Your task to perform on an android device: toggle show notifications on the lock screen Image 0: 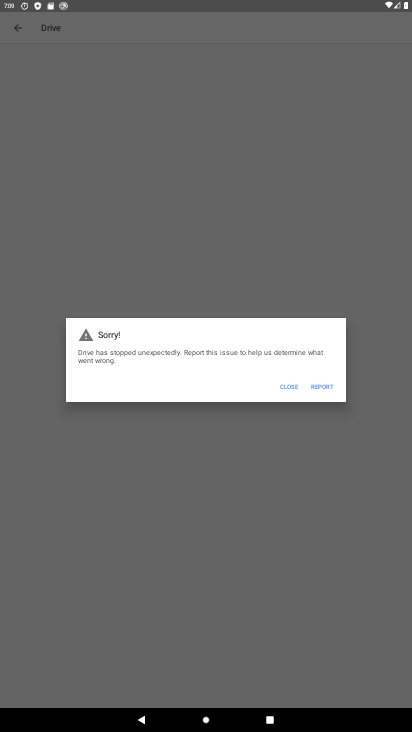
Step 0: press home button
Your task to perform on an android device: toggle show notifications on the lock screen Image 1: 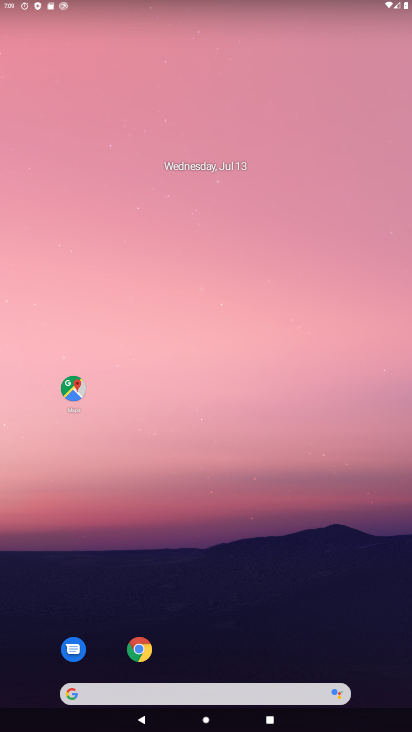
Step 1: drag from (205, 690) to (248, 141)
Your task to perform on an android device: toggle show notifications on the lock screen Image 2: 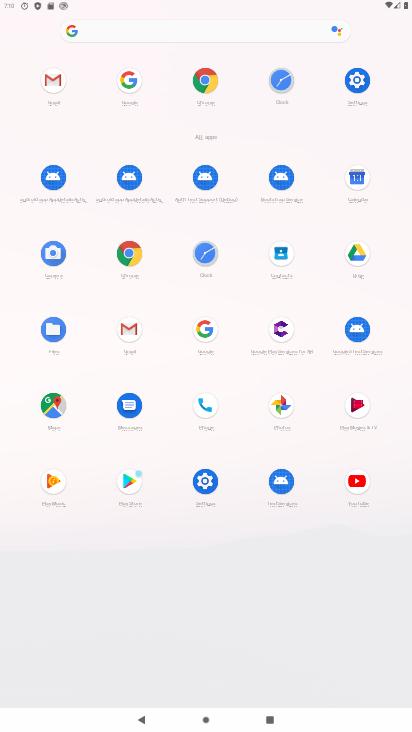
Step 2: click (357, 81)
Your task to perform on an android device: toggle show notifications on the lock screen Image 3: 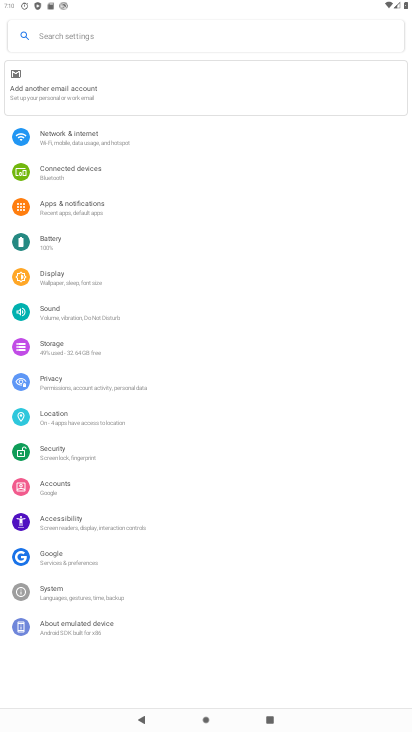
Step 3: click (70, 203)
Your task to perform on an android device: toggle show notifications on the lock screen Image 4: 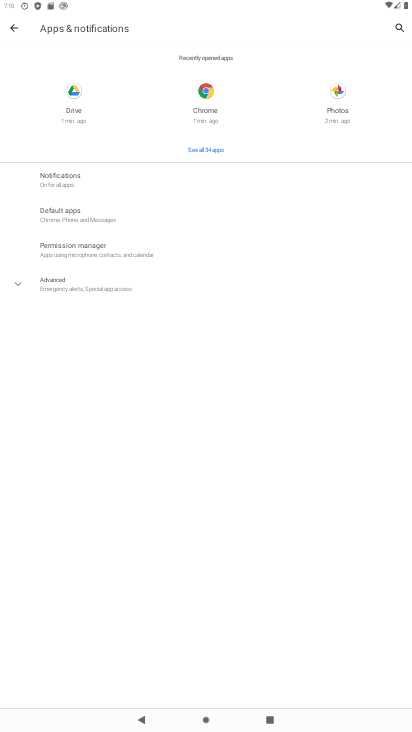
Step 4: click (68, 184)
Your task to perform on an android device: toggle show notifications on the lock screen Image 5: 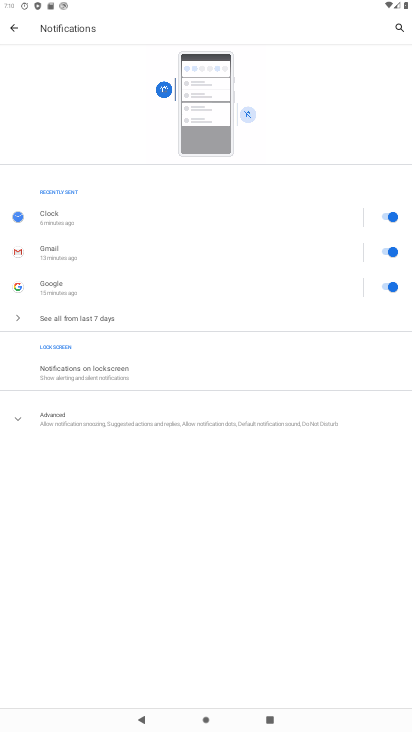
Step 5: click (115, 373)
Your task to perform on an android device: toggle show notifications on the lock screen Image 6: 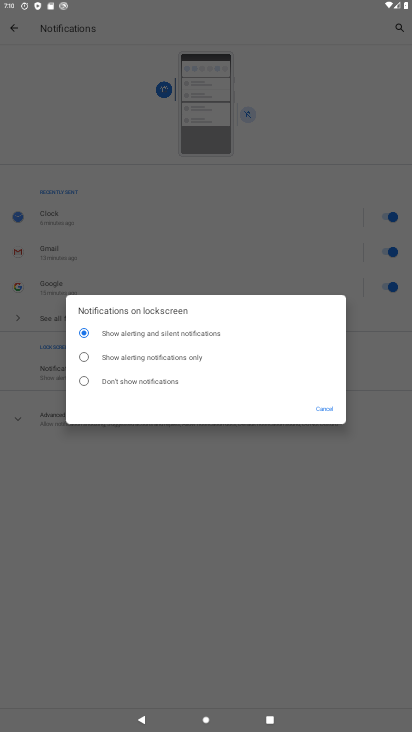
Step 6: click (79, 387)
Your task to perform on an android device: toggle show notifications on the lock screen Image 7: 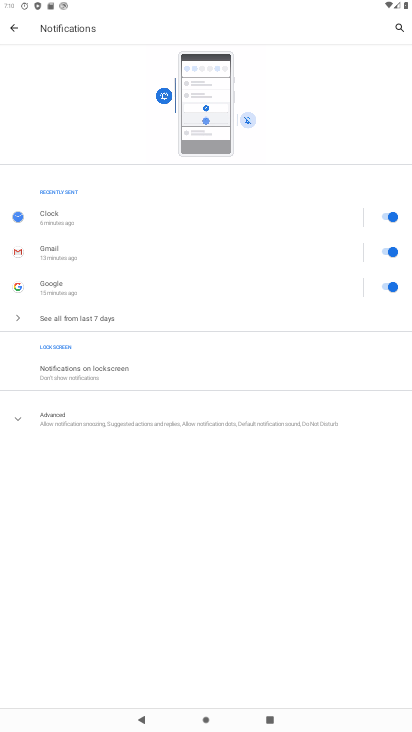
Step 7: task complete